Your task to perform on an android device: Open settings on Google Maps Image 0: 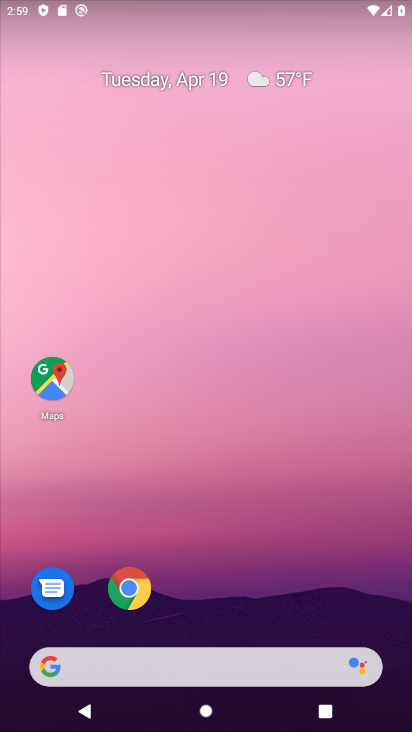
Step 0: click (254, 41)
Your task to perform on an android device: Open settings on Google Maps Image 1: 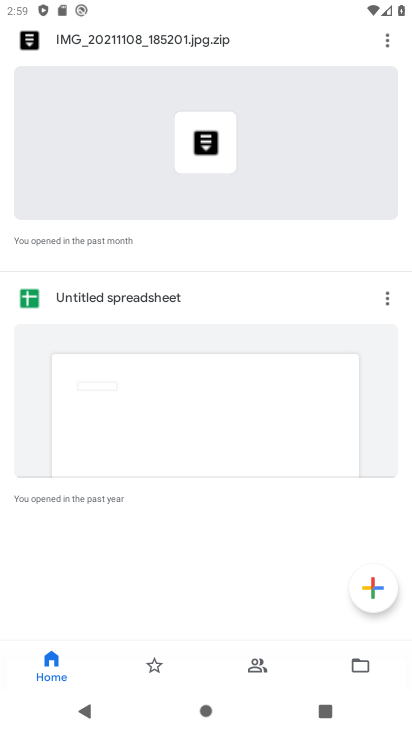
Step 1: press home button
Your task to perform on an android device: Open settings on Google Maps Image 2: 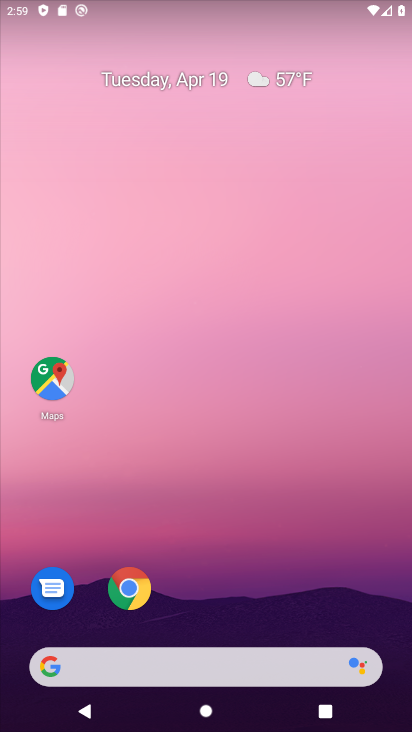
Step 2: drag from (211, 616) to (329, 87)
Your task to perform on an android device: Open settings on Google Maps Image 3: 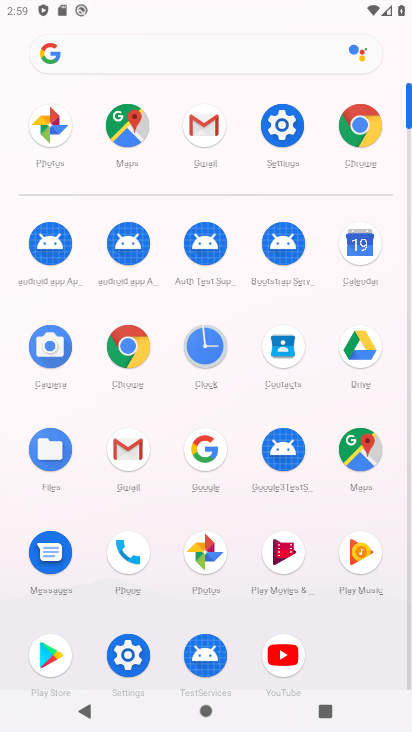
Step 3: click (355, 449)
Your task to perform on an android device: Open settings on Google Maps Image 4: 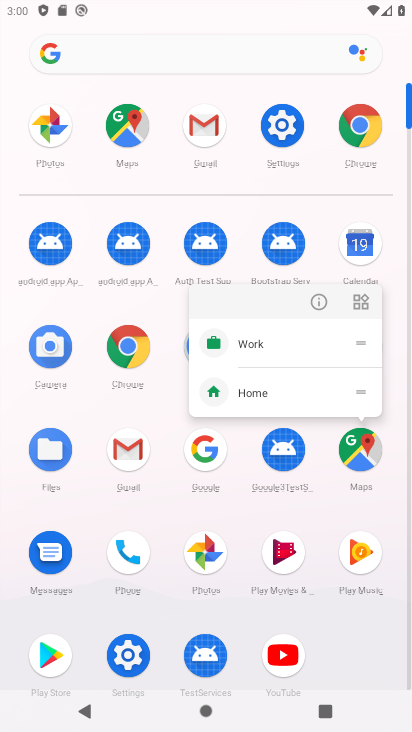
Step 4: click (326, 303)
Your task to perform on an android device: Open settings on Google Maps Image 5: 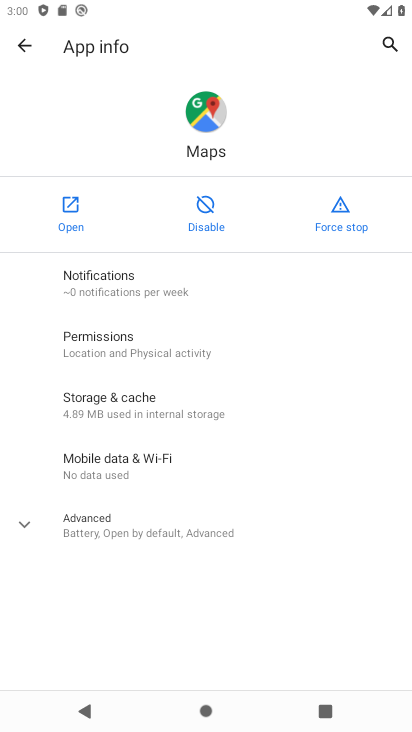
Step 5: click (81, 214)
Your task to perform on an android device: Open settings on Google Maps Image 6: 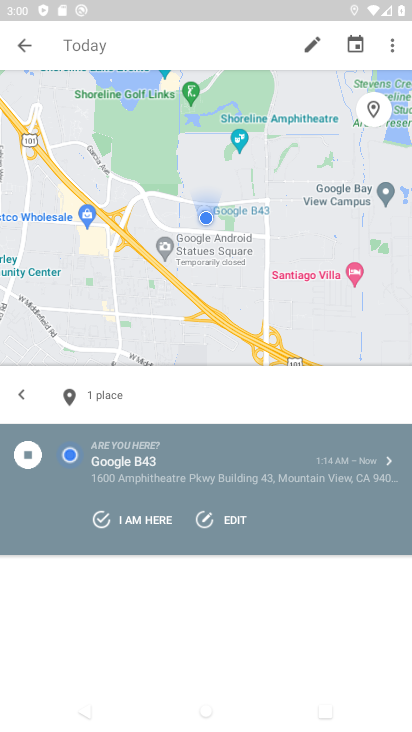
Step 6: click (24, 43)
Your task to perform on an android device: Open settings on Google Maps Image 7: 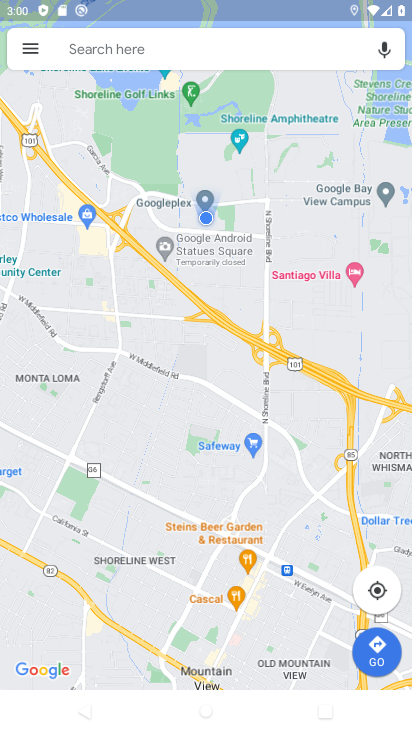
Step 7: click (30, 45)
Your task to perform on an android device: Open settings on Google Maps Image 8: 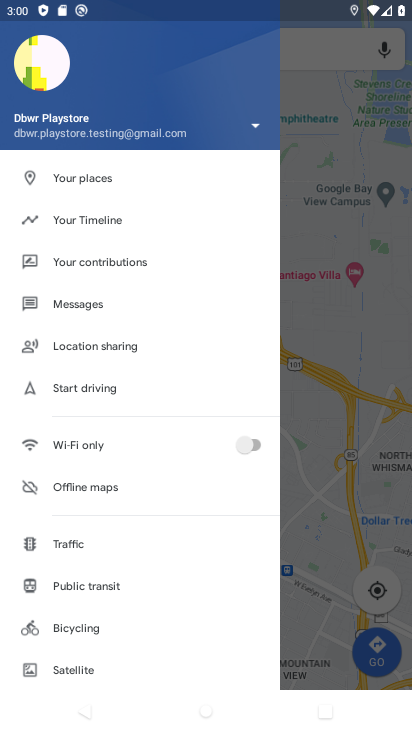
Step 8: drag from (90, 638) to (161, 175)
Your task to perform on an android device: Open settings on Google Maps Image 9: 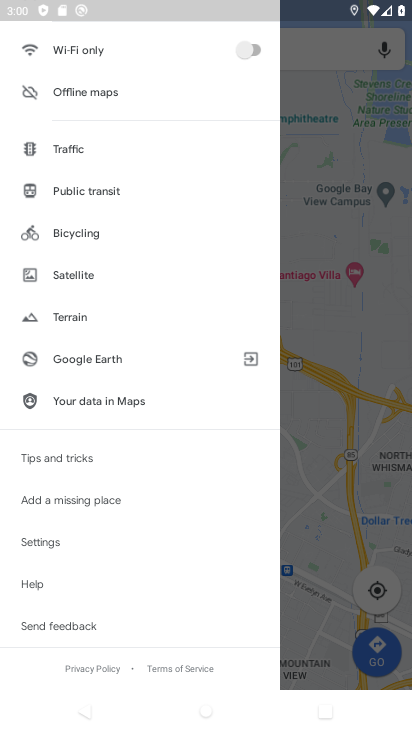
Step 9: click (55, 533)
Your task to perform on an android device: Open settings on Google Maps Image 10: 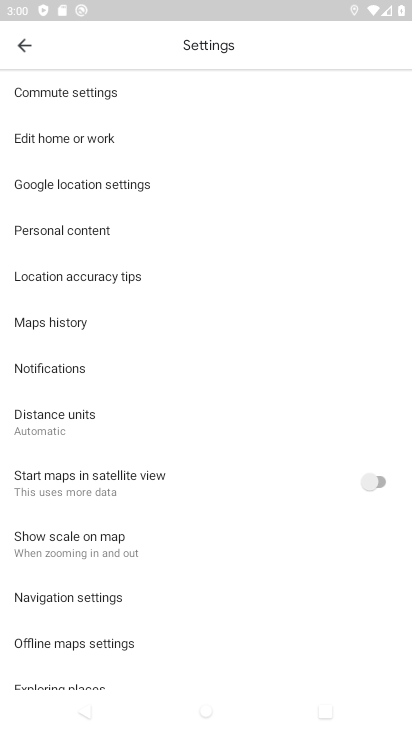
Step 10: task complete